Your task to perform on an android device: Open ESPN.com Image 0: 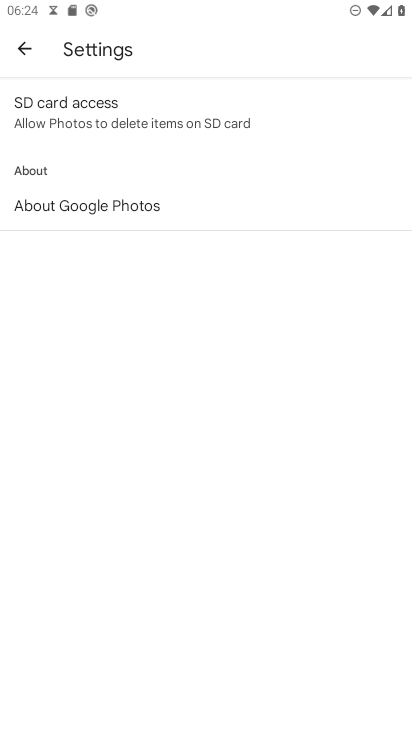
Step 0: press home button
Your task to perform on an android device: Open ESPN.com Image 1: 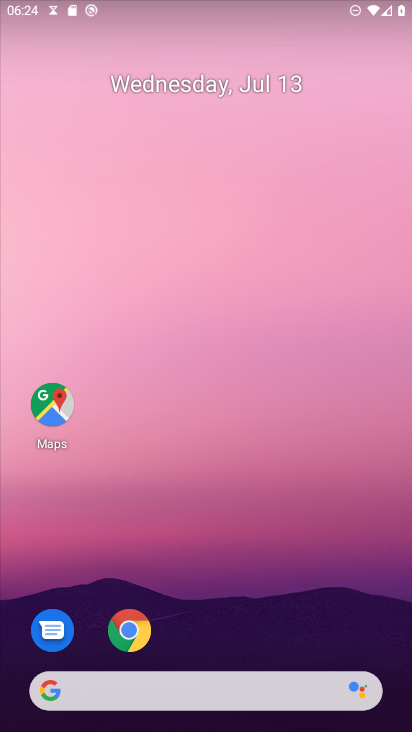
Step 1: drag from (202, 701) to (236, 62)
Your task to perform on an android device: Open ESPN.com Image 2: 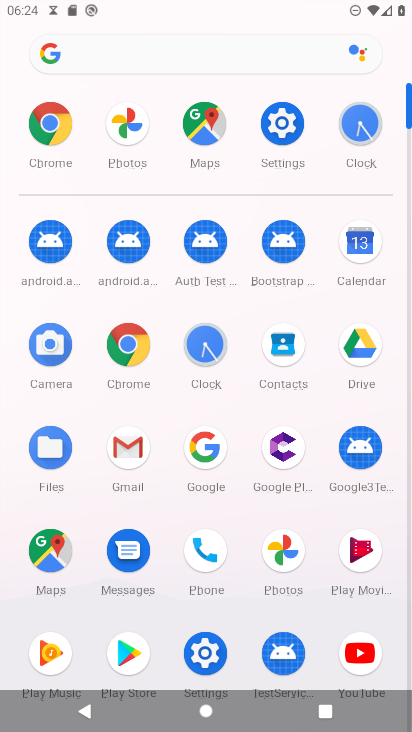
Step 2: click (129, 346)
Your task to perform on an android device: Open ESPN.com Image 3: 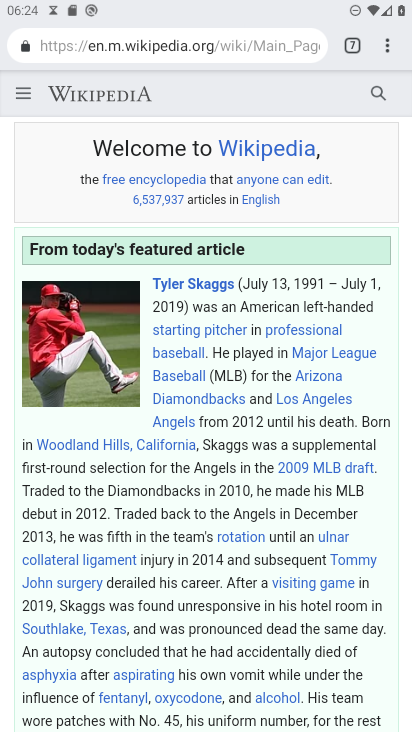
Step 3: click (284, 37)
Your task to perform on an android device: Open ESPN.com Image 4: 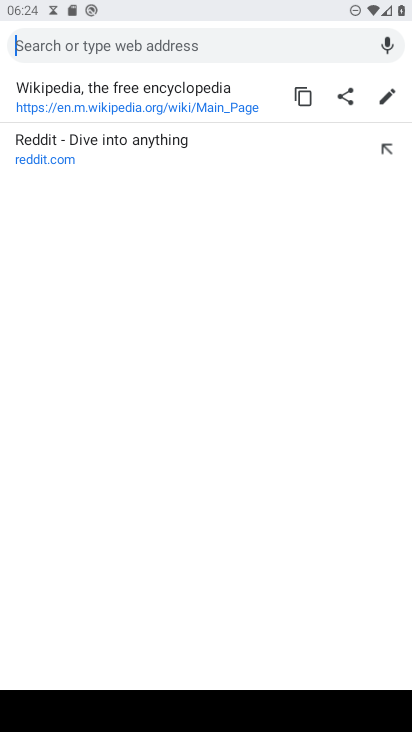
Step 4: type "espn.com"
Your task to perform on an android device: Open ESPN.com Image 5: 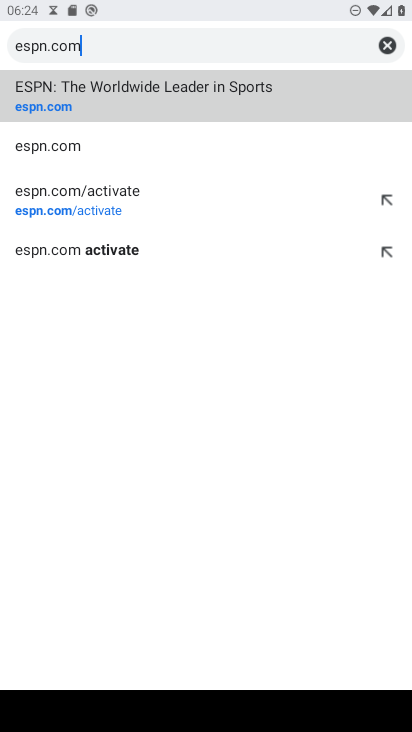
Step 5: click (251, 83)
Your task to perform on an android device: Open ESPN.com Image 6: 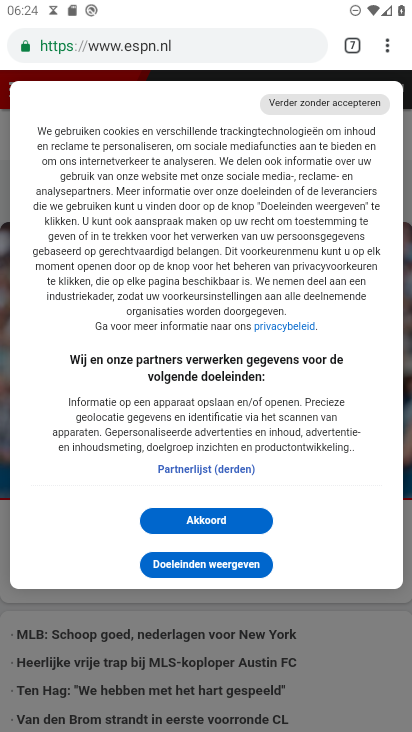
Step 6: task complete